Your task to perform on an android device: change your default location settings in chrome Image 0: 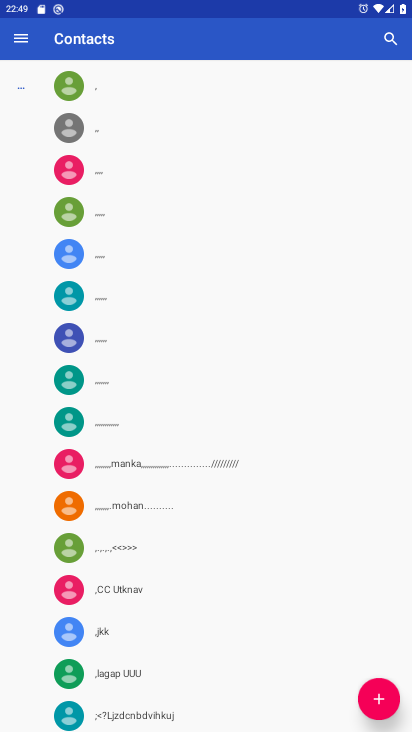
Step 0: press home button
Your task to perform on an android device: change your default location settings in chrome Image 1: 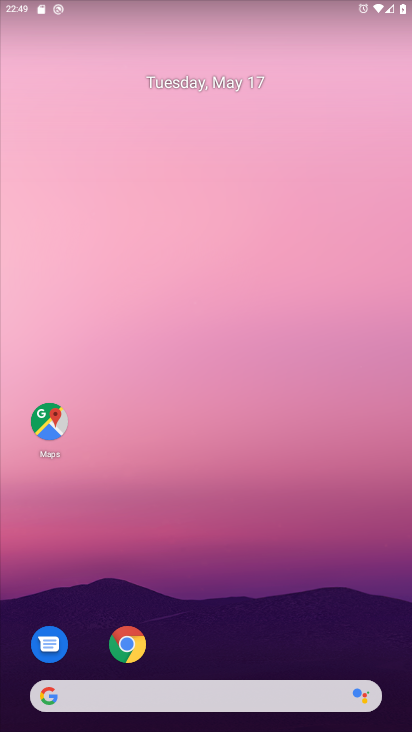
Step 1: click (132, 642)
Your task to perform on an android device: change your default location settings in chrome Image 2: 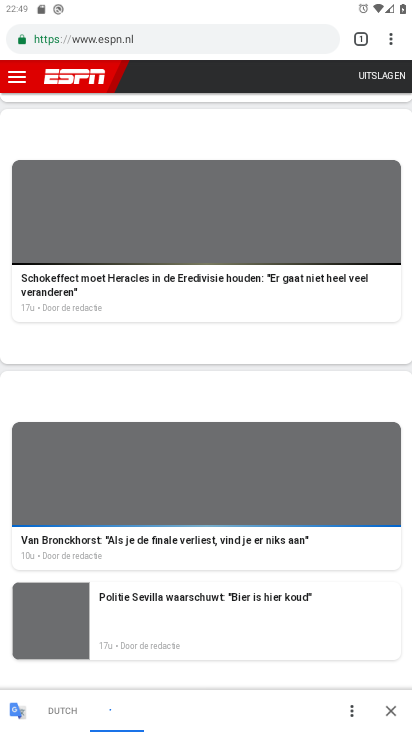
Step 2: click (358, 35)
Your task to perform on an android device: change your default location settings in chrome Image 3: 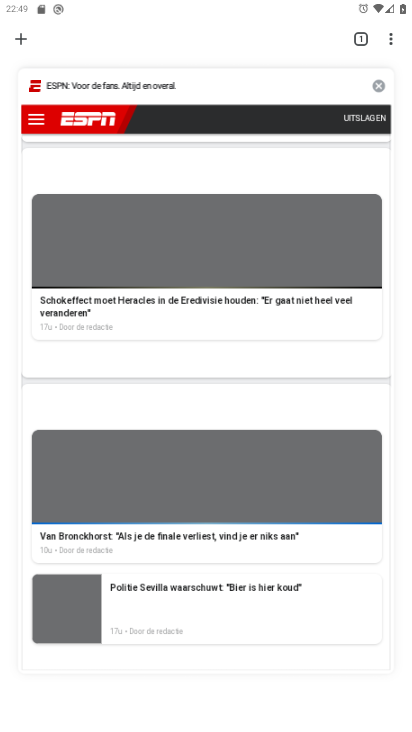
Step 3: click (156, 195)
Your task to perform on an android device: change your default location settings in chrome Image 4: 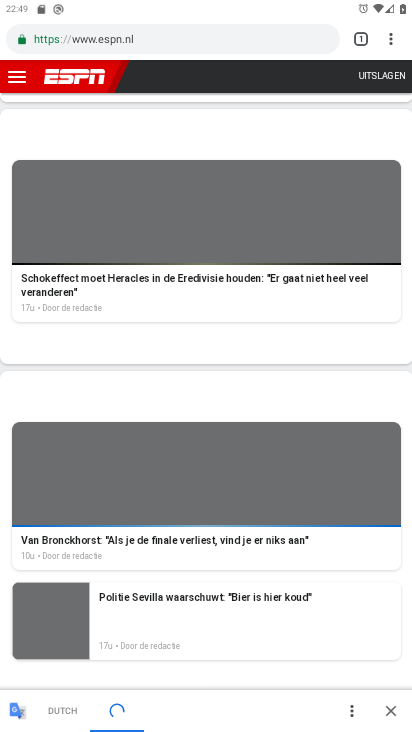
Step 4: click (394, 34)
Your task to perform on an android device: change your default location settings in chrome Image 5: 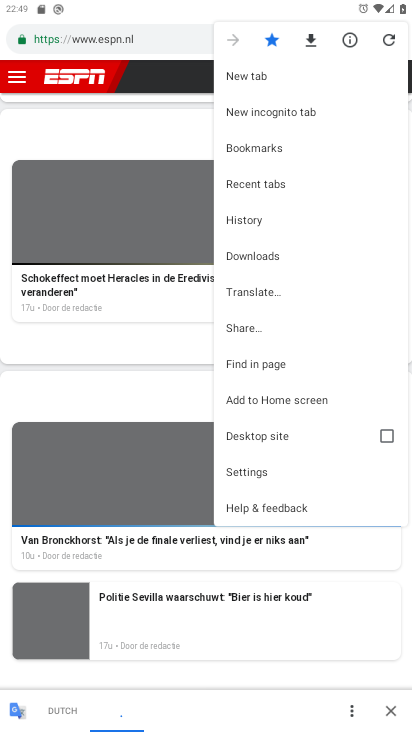
Step 5: click (274, 470)
Your task to perform on an android device: change your default location settings in chrome Image 6: 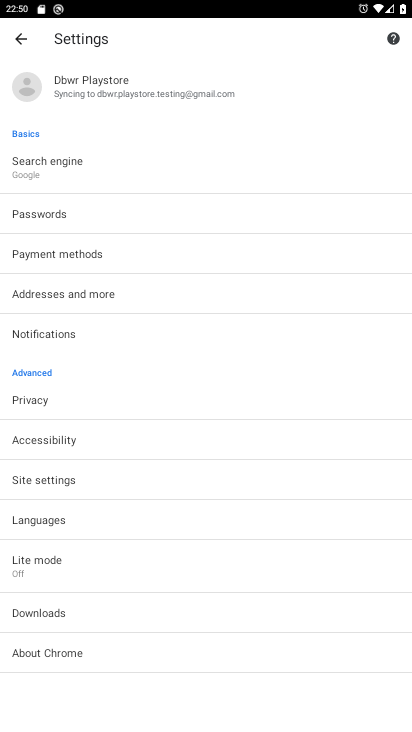
Step 6: click (97, 479)
Your task to perform on an android device: change your default location settings in chrome Image 7: 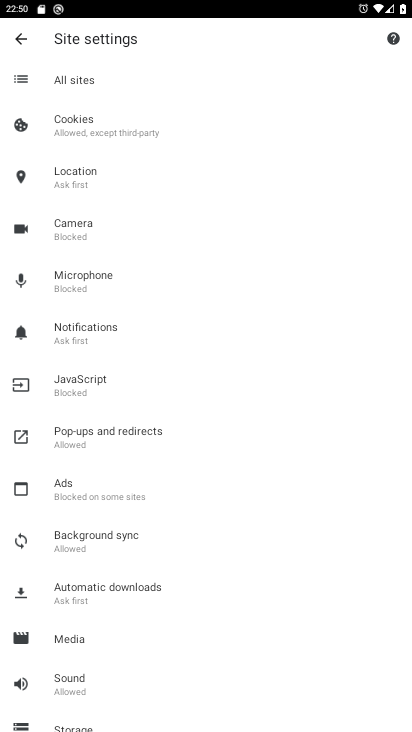
Step 7: click (102, 180)
Your task to perform on an android device: change your default location settings in chrome Image 8: 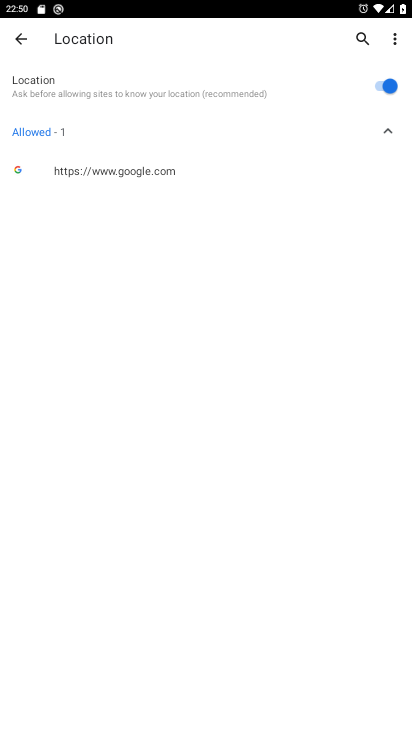
Step 8: click (386, 84)
Your task to perform on an android device: change your default location settings in chrome Image 9: 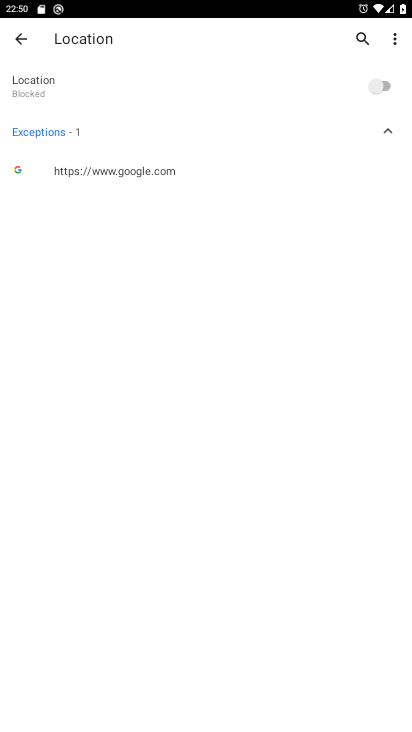
Step 9: task complete